Your task to perform on an android device: add a label to a message in the gmail app Image 0: 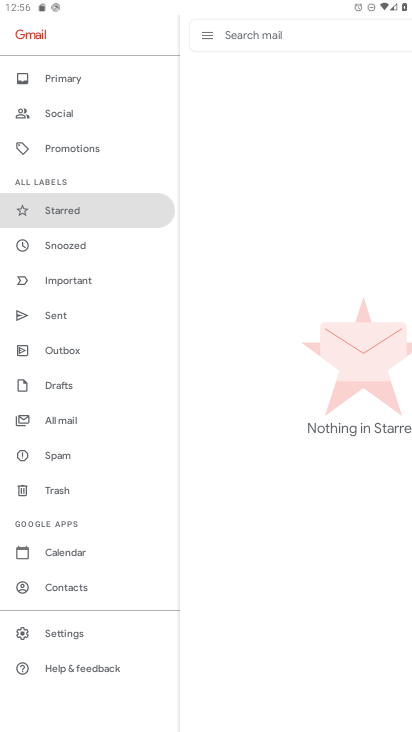
Step 0: press home button
Your task to perform on an android device: add a label to a message in the gmail app Image 1: 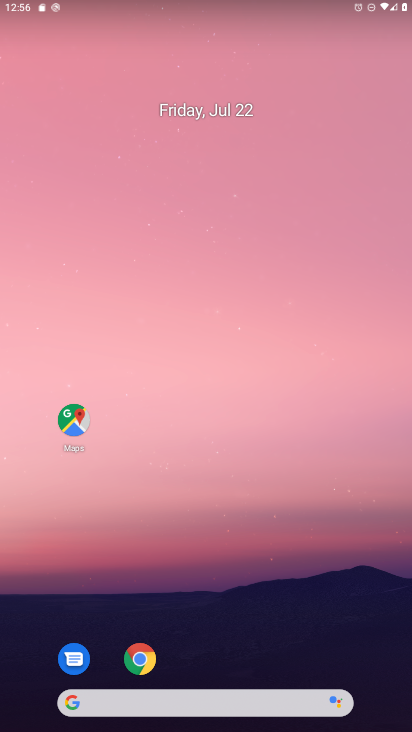
Step 1: drag from (247, 713) to (363, 114)
Your task to perform on an android device: add a label to a message in the gmail app Image 2: 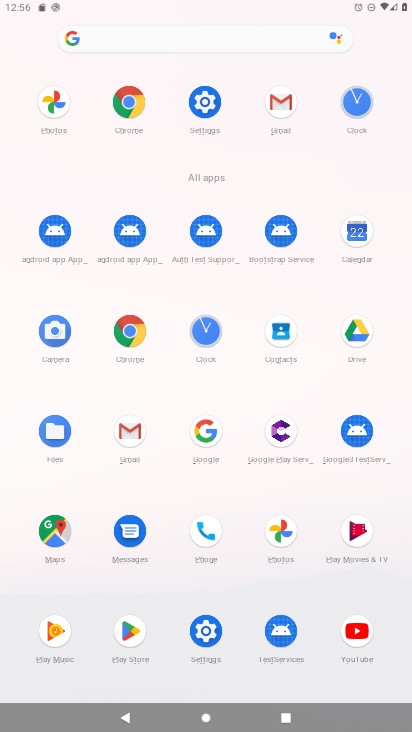
Step 2: click (149, 427)
Your task to perform on an android device: add a label to a message in the gmail app Image 3: 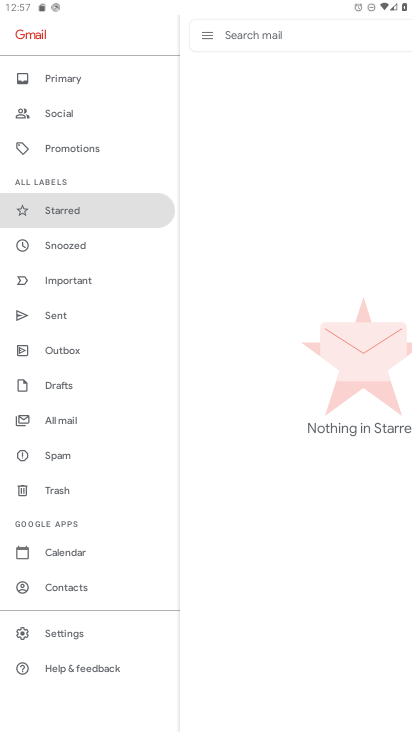
Step 3: click (73, 627)
Your task to perform on an android device: add a label to a message in the gmail app Image 4: 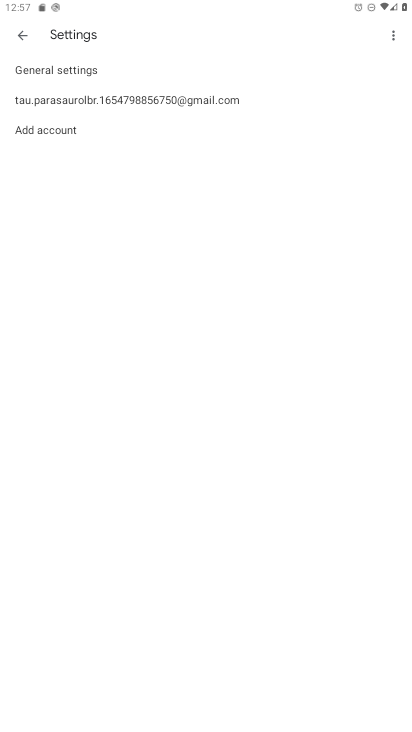
Step 4: click (126, 104)
Your task to perform on an android device: add a label to a message in the gmail app Image 5: 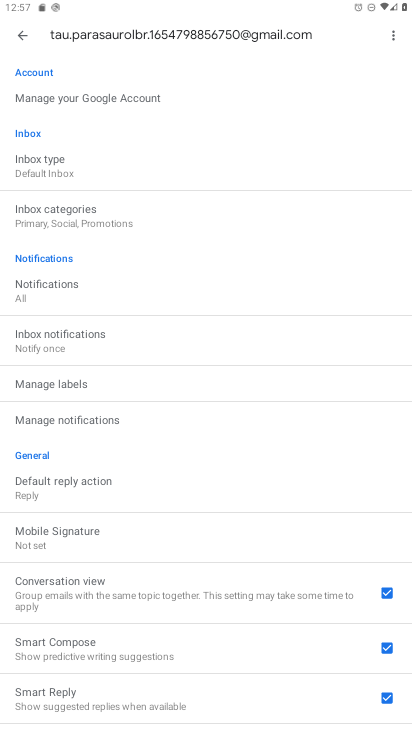
Step 5: click (76, 388)
Your task to perform on an android device: add a label to a message in the gmail app Image 6: 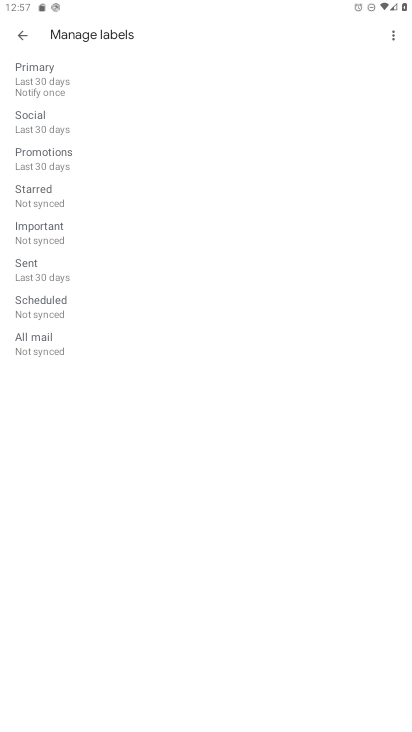
Step 6: click (43, 191)
Your task to perform on an android device: add a label to a message in the gmail app Image 7: 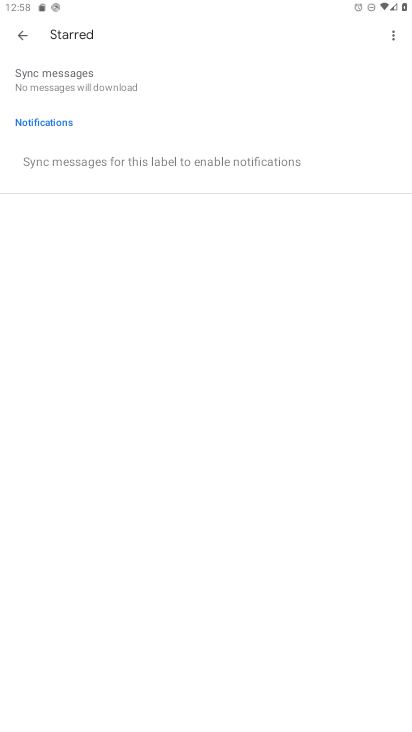
Step 7: task complete